Your task to perform on an android device: Open Google Chrome and open the bookmarks view Image 0: 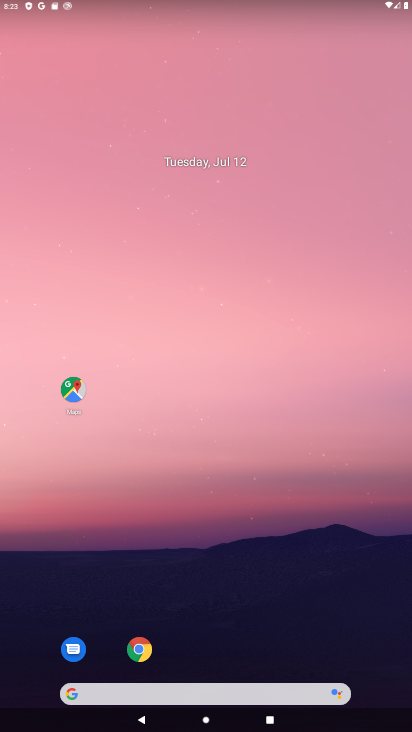
Step 0: click (143, 660)
Your task to perform on an android device: Open Google Chrome and open the bookmarks view Image 1: 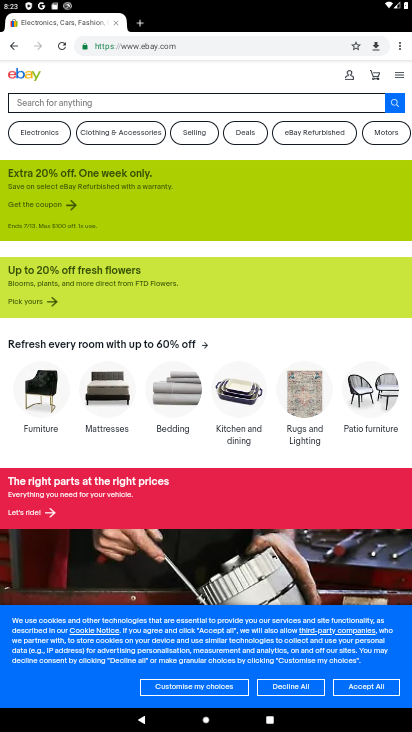
Step 1: click (394, 52)
Your task to perform on an android device: Open Google Chrome and open the bookmarks view Image 2: 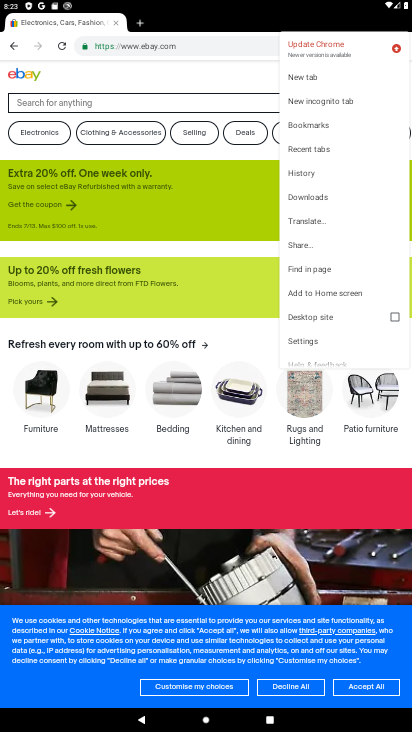
Step 2: click (330, 127)
Your task to perform on an android device: Open Google Chrome and open the bookmarks view Image 3: 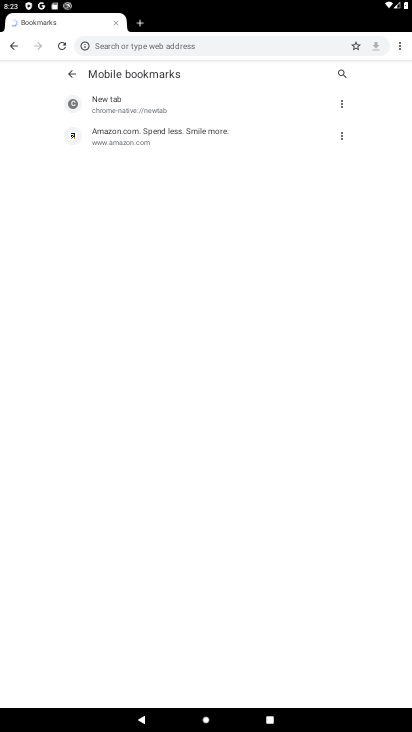
Step 3: task complete